Your task to perform on an android device: Search for sushi restaurants on Maps Image 0: 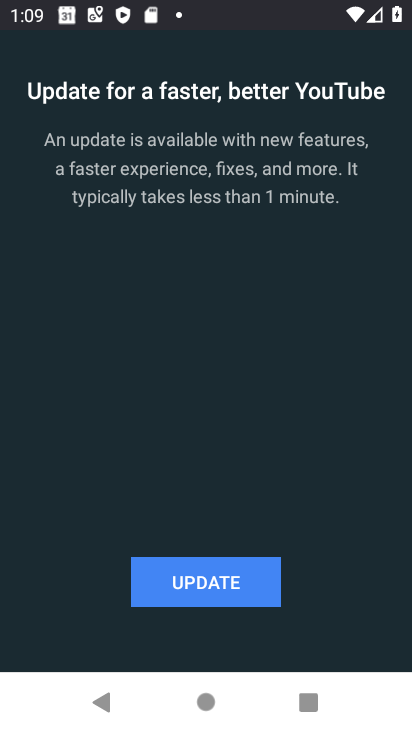
Step 0: press home button
Your task to perform on an android device: Search for sushi restaurants on Maps Image 1: 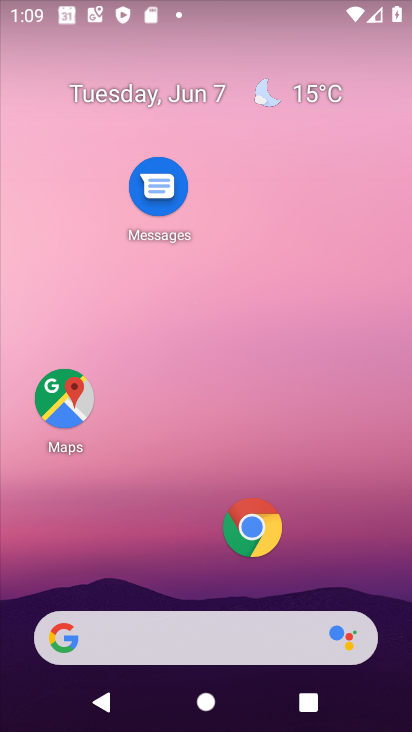
Step 1: click (54, 403)
Your task to perform on an android device: Search for sushi restaurants on Maps Image 2: 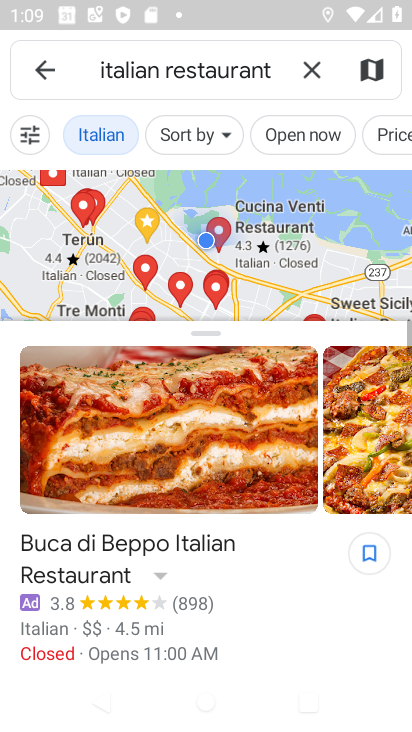
Step 2: click (314, 79)
Your task to perform on an android device: Search for sushi restaurants on Maps Image 3: 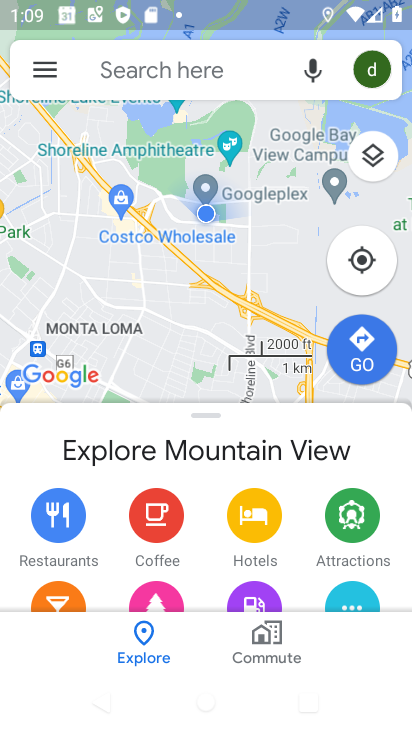
Step 3: click (196, 76)
Your task to perform on an android device: Search for sushi restaurants on Maps Image 4: 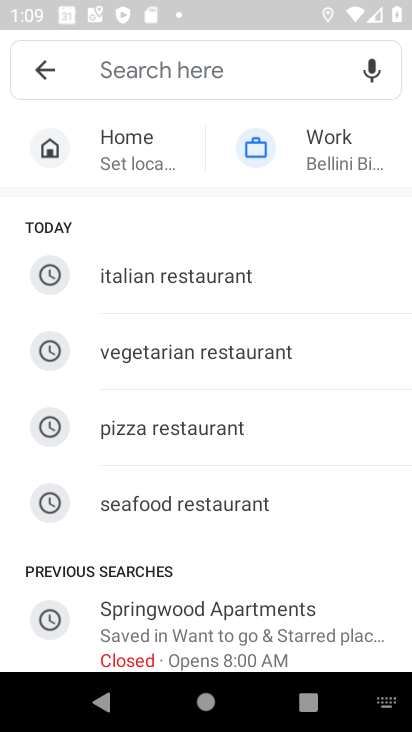
Step 4: drag from (150, 632) to (164, 381)
Your task to perform on an android device: Search for sushi restaurants on Maps Image 5: 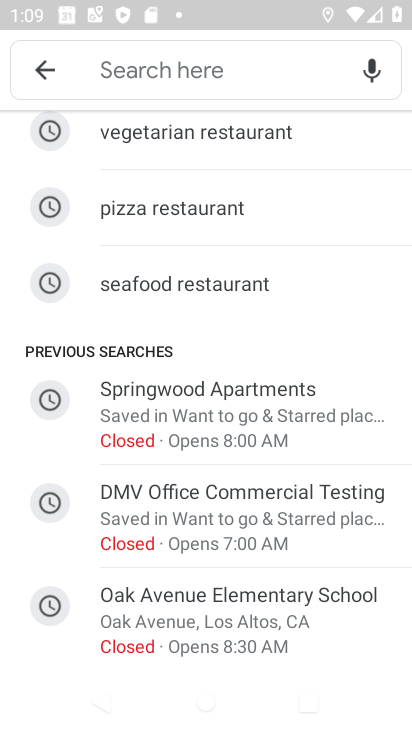
Step 5: drag from (152, 653) to (170, 317)
Your task to perform on an android device: Search for sushi restaurants on Maps Image 6: 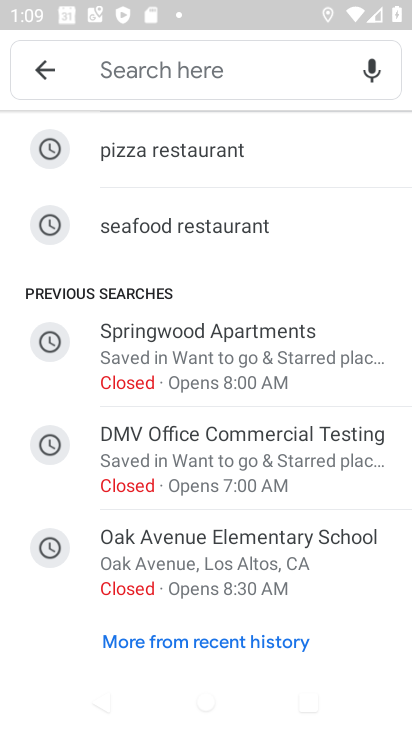
Step 6: click (161, 649)
Your task to perform on an android device: Search for sushi restaurants on Maps Image 7: 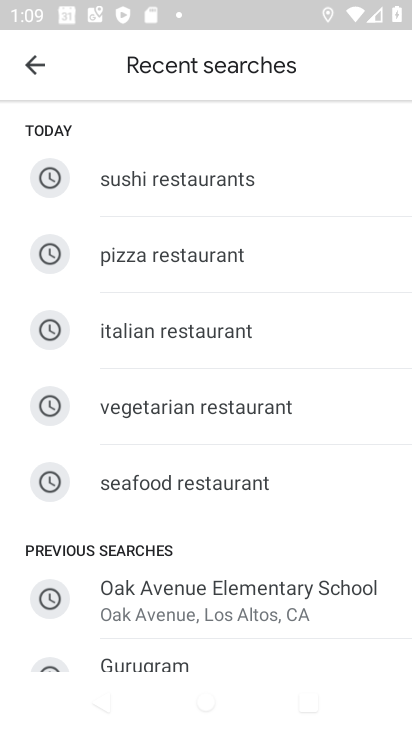
Step 7: click (206, 187)
Your task to perform on an android device: Search for sushi restaurants on Maps Image 8: 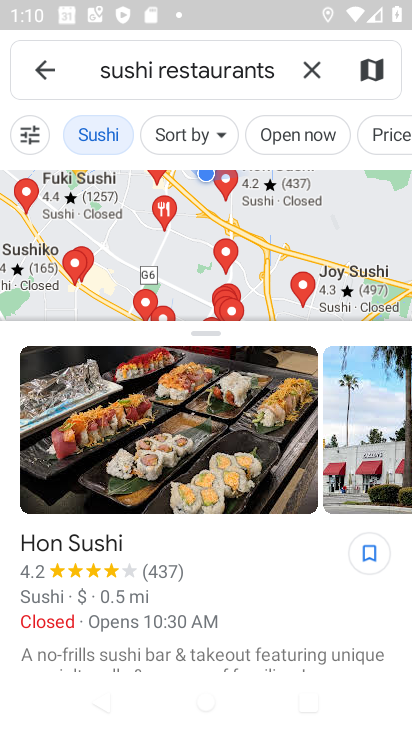
Step 8: task complete